Your task to perform on an android device: Go to internet settings Image 0: 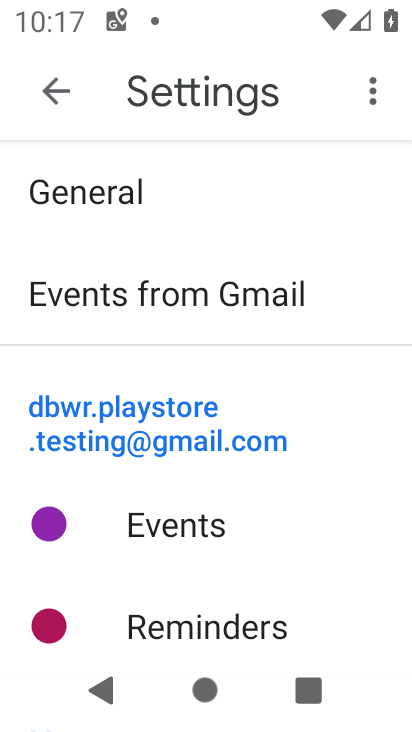
Step 0: press home button
Your task to perform on an android device: Go to internet settings Image 1: 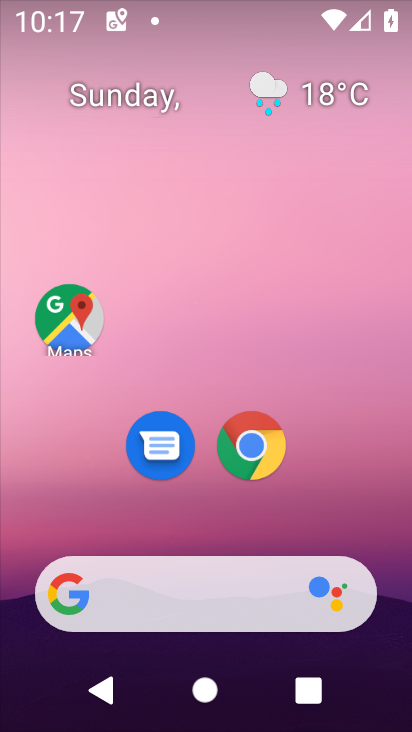
Step 1: drag from (208, 522) to (246, 19)
Your task to perform on an android device: Go to internet settings Image 2: 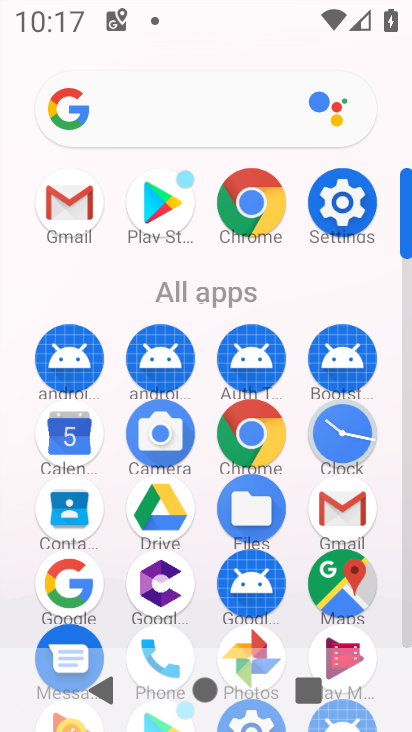
Step 2: click (335, 194)
Your task to perform on an android device: Go to internet settings Image 3: 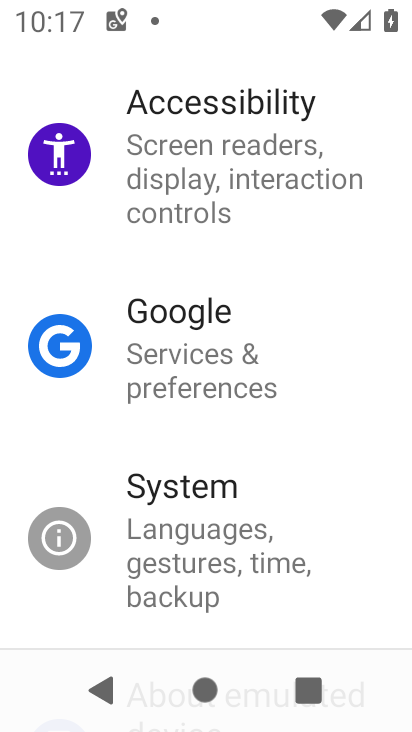
Step 3: drag from (230, 174) to (230, 670)
Your task to perform on an android device: Go to internet settings Image 4: 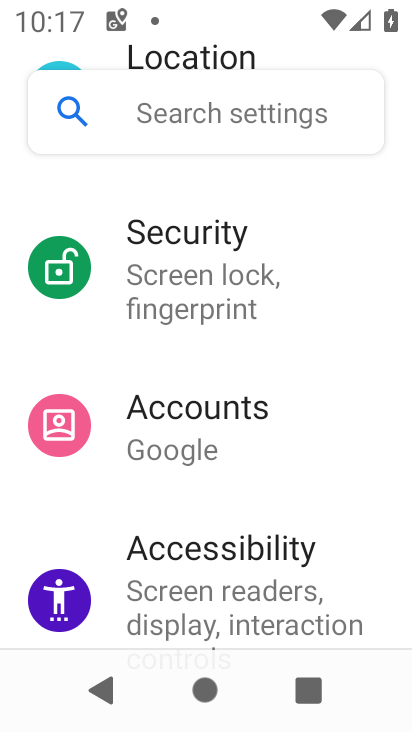
Step 4: drag from (243, 176) to (265, 713)
Your task to perform on an android device: Go to internet settings Image 5: 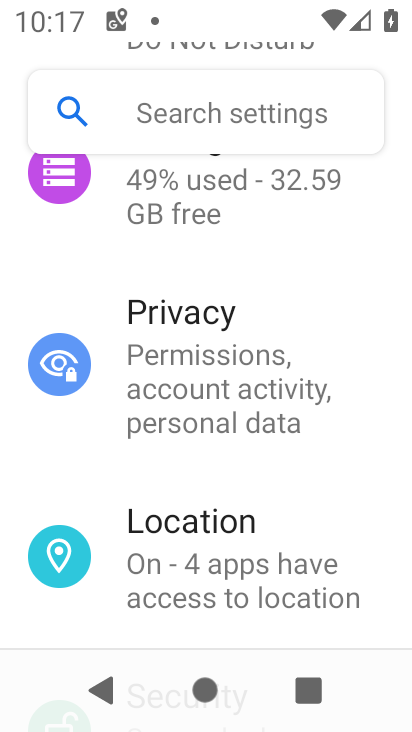
Step 5: drag from (253, 220) to (253, 709)
Your task to perform on an android device: Go to internet settings Image 6: 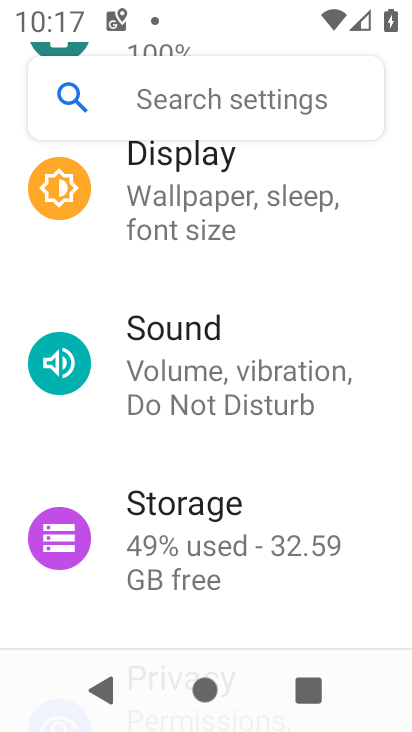
Step 6: drag from (253, 178) to (280, 729)
Your task to perform on an android device: Go to internet settings Image 7: 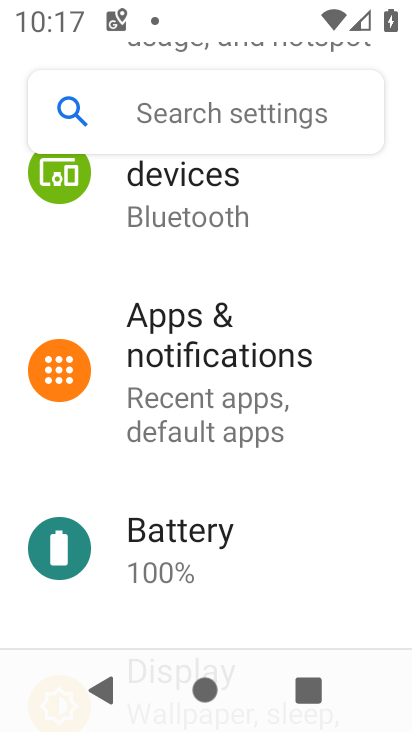
Step 7: drag from (283, 181) to (292, 692)
Your task to perform on an android device: Go to internet settings Image 8: 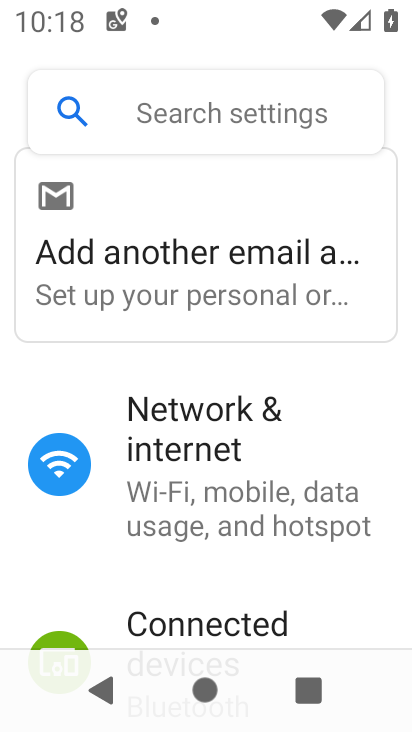
Step 8: click (277, 456)
Your task to perform on an android device: Go to internet settings Image 9: 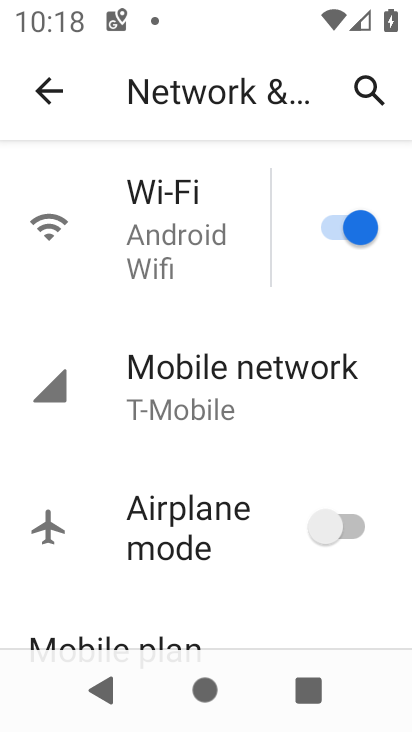
Step 9: drag from (212, 613) to (237, 117)
Your task to perform on an android device: Go to internet settings Image 10: 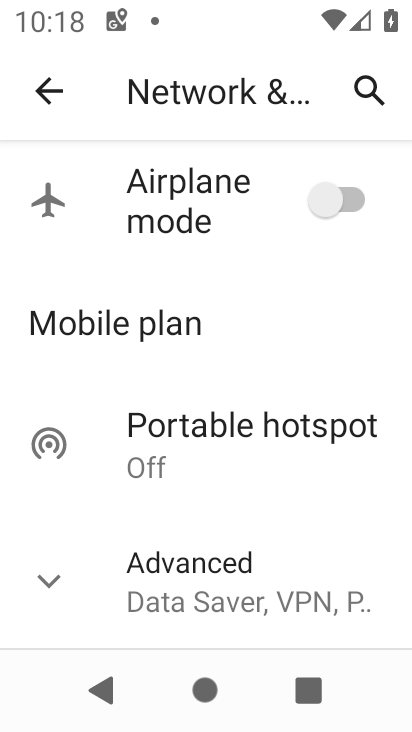
Step 10: click (45, 575)
Your task to perform on an android device: Go to internet settings Image 11: 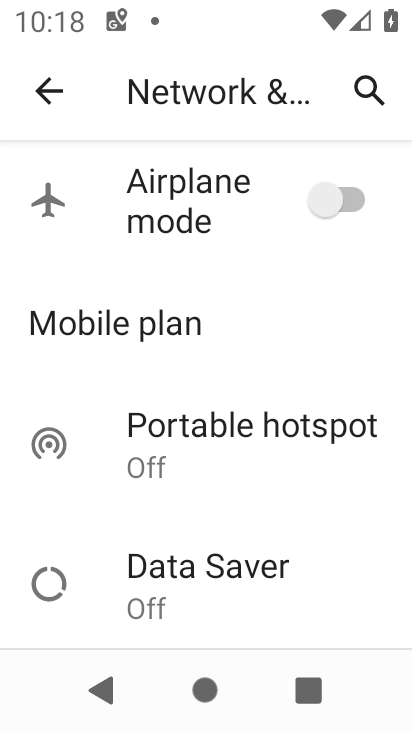
Step 11: task complete